Your task to perform on an android device: change text size in settings app Image 0: 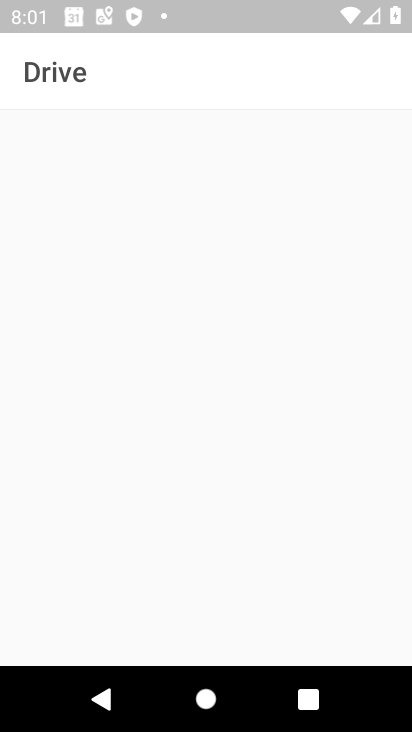
Step 0: press home button
Your task to perform on an android device: change text size in settings app Image 1: 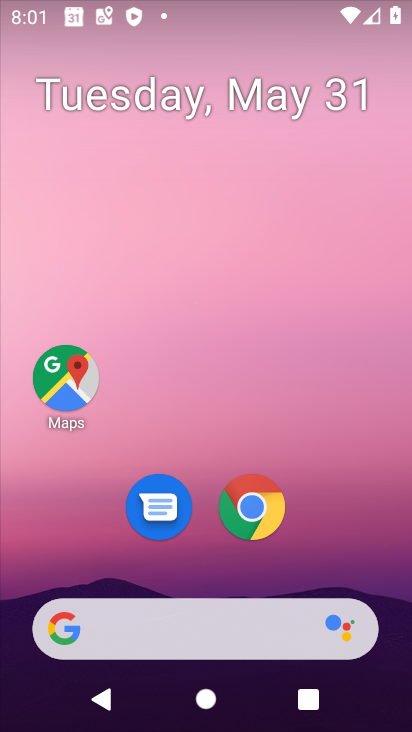
Step 1: drag from (355, 521) to (309, 191)
Your task to perform on an android device: change text size in settings app Image 2: 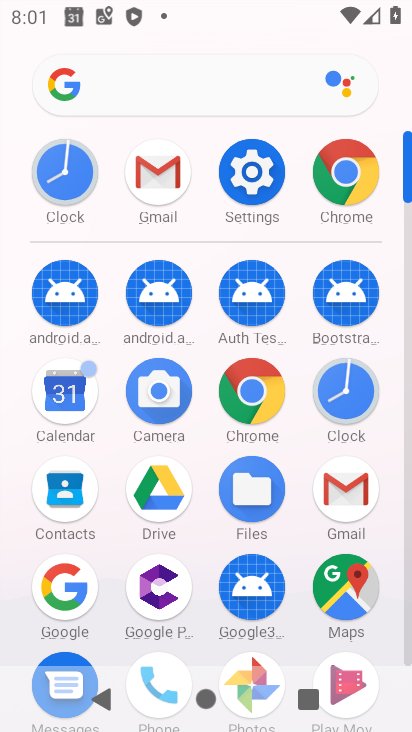
Step 2: click (259, 184)
Your task to perform on an android device: change text size in settings app Image 3: 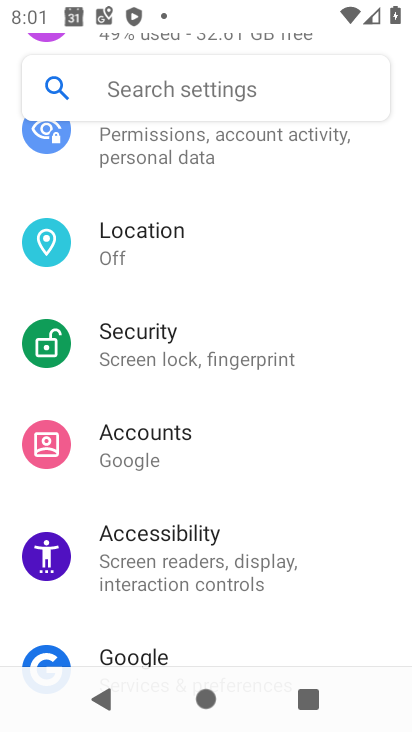
Step 3: drag from (248, 556) to (350, 111)
Your task to perform on an android device: change text size in settings app Image 4: 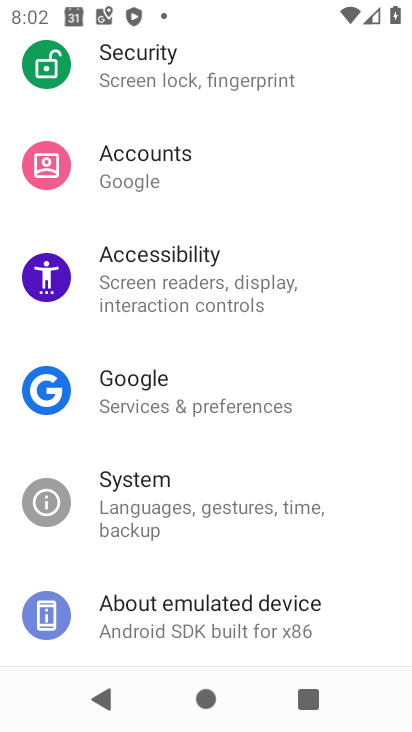
Step 4: drag from (230, 251) to (223, 592)
Your task to perform on an android device: change text size in settings app Image 5: 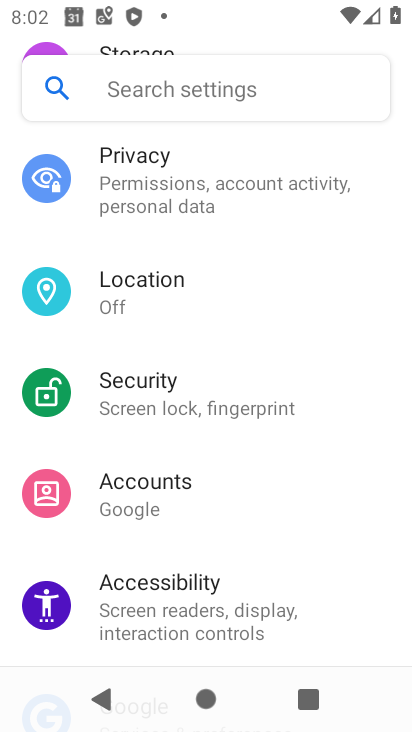
Step 5: drag from (255, 269) to (197, 561)
Your task to perform on an android device: change text size in settings app Image 6: 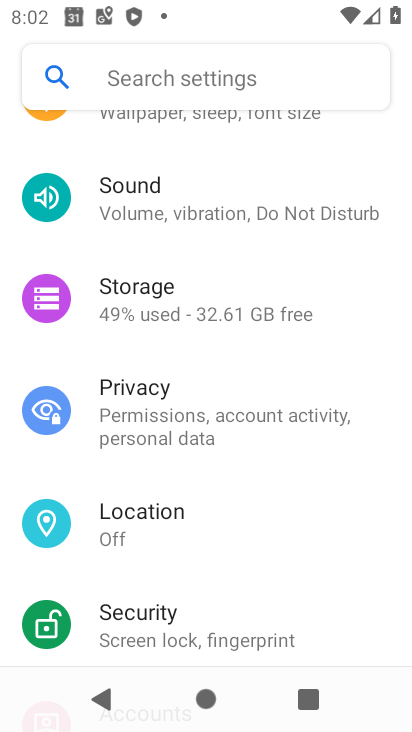
Step 6: drag from (266, 214) to (201, 490)
Your task to perform on an android device: change text size in settings app Image 7: 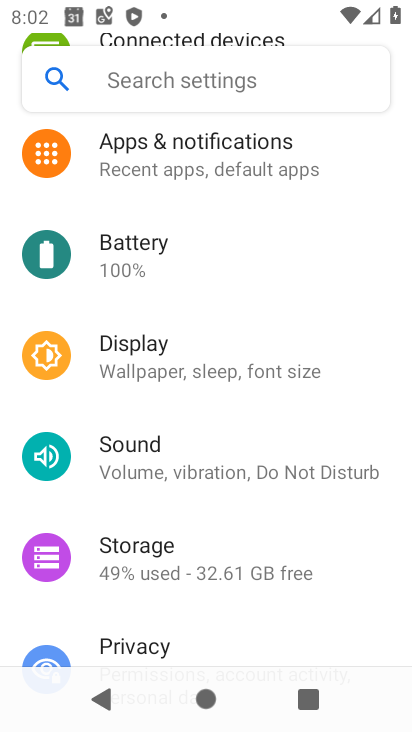
Step 7: click (226, 357)
Your task to perform on an android device: change text size in settings app Image 8: 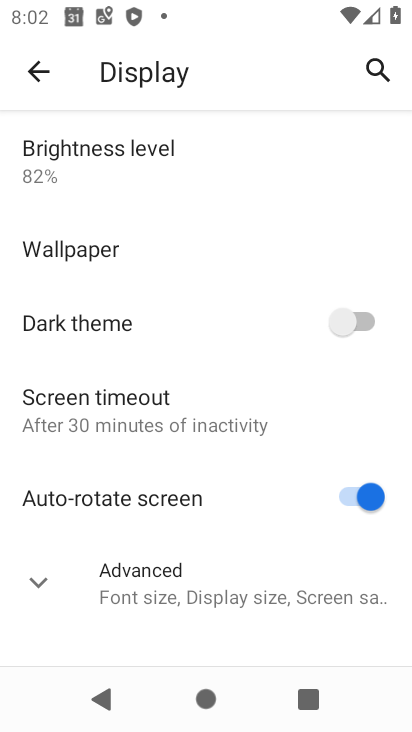
Step 8: click (186, 570)
Your task to perform on an android device: change text size in settings app Image 9: 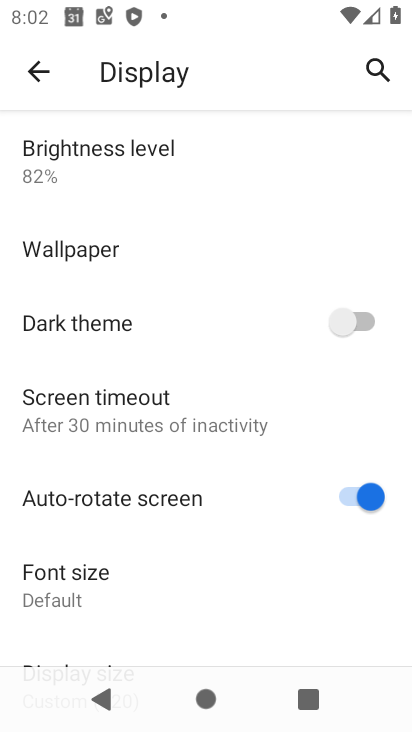
Step 9: click (94, 580)
Your task to perform on an android device: change text size in settings app Image 10: 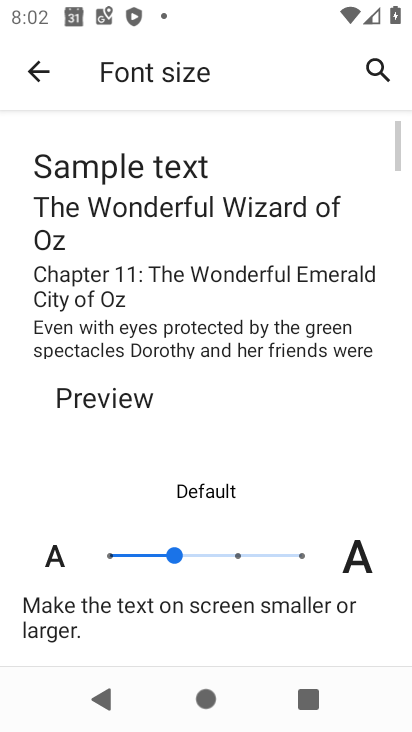
Step 10: click (125, 552)
Your task to perform on an android device: change text size in settings app Image 11: 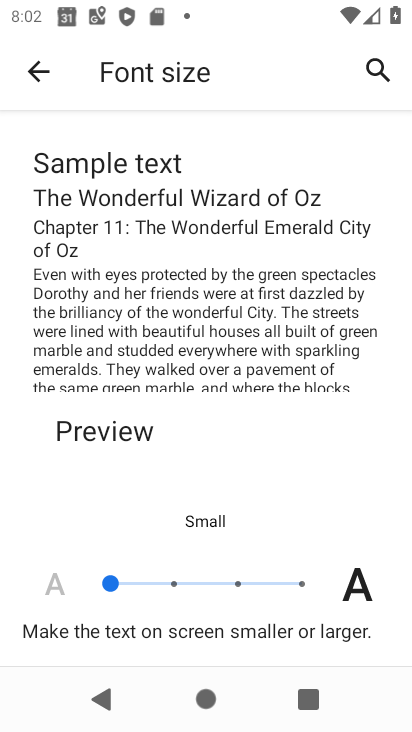
Step 11: task complete